Your task to perform on an android device: open app "Indeed Job Search" (install if not already installed) Image 0: 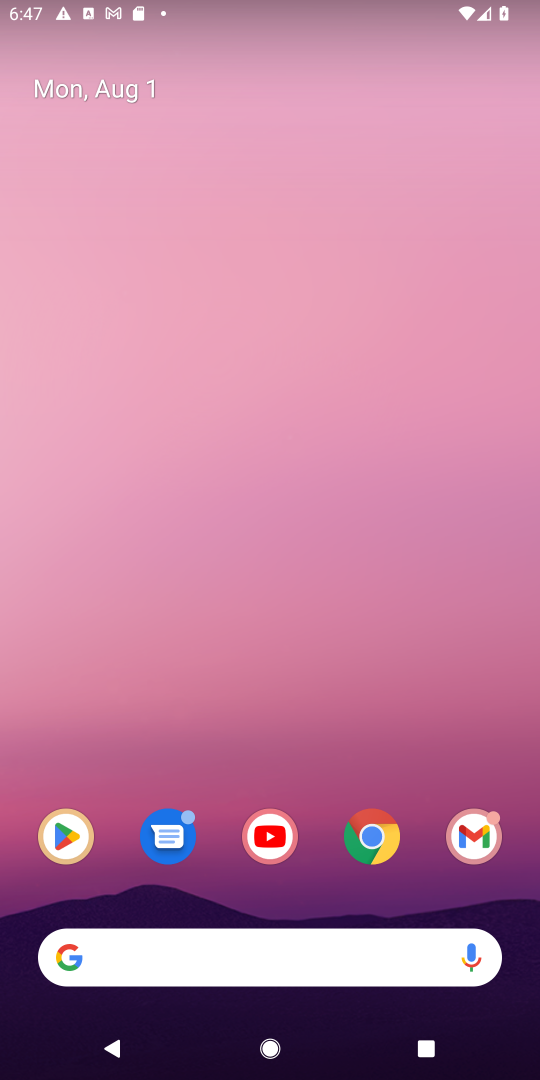
Step 0: click (61, 818)
Your task to perform on an android device: open app "Indeed Job Search" (install if not already installed) Image 1: 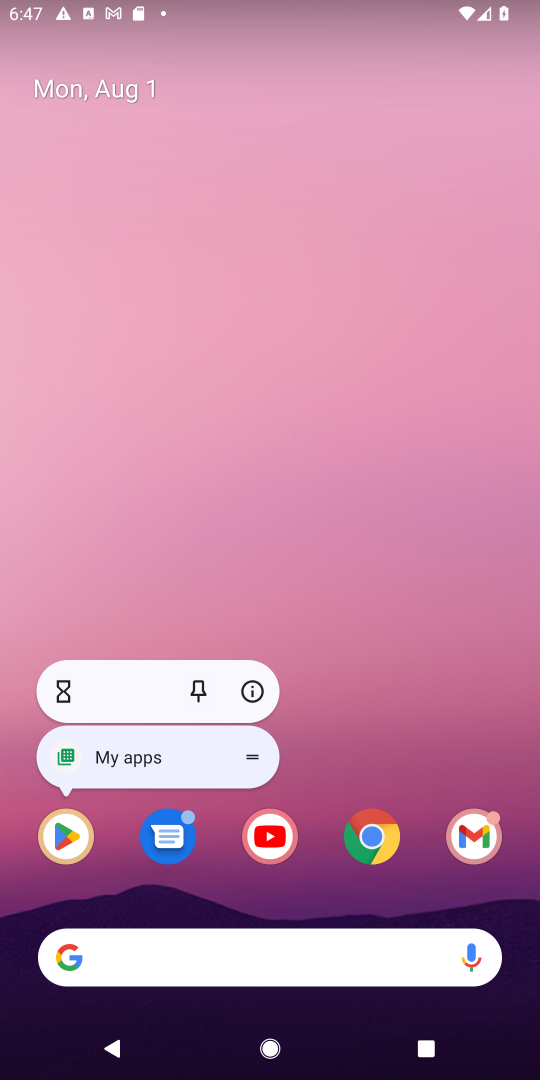
Step 1: click (55, 852)
Your task to perform on an android device: open app "Indeed Job Search" (install if not already installed) Image 2: 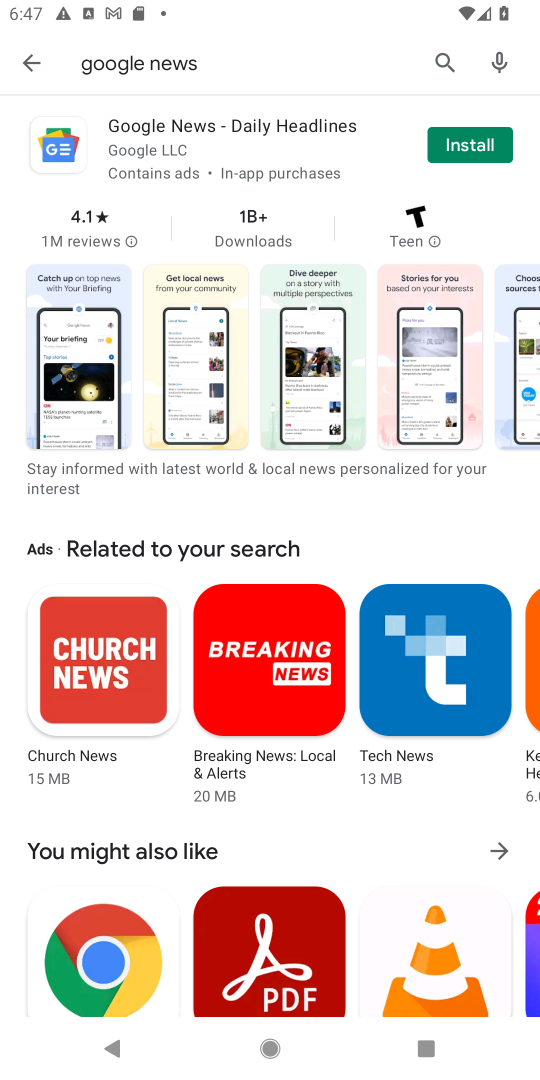
Step 2: click (441, 52)
Your task to perform on an android device: open app "Indeed Job Search" (install if not already installed) Image 3: 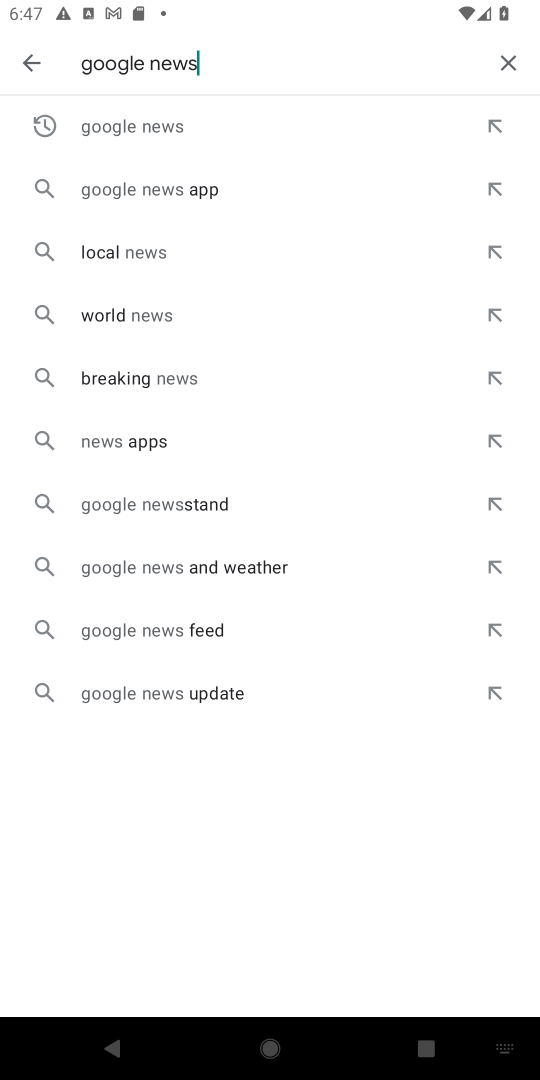
Step 3: click (510, 57)
Your task to perform on an android device: open app "Indeed Job Search" (install if not already installed) Image 4: 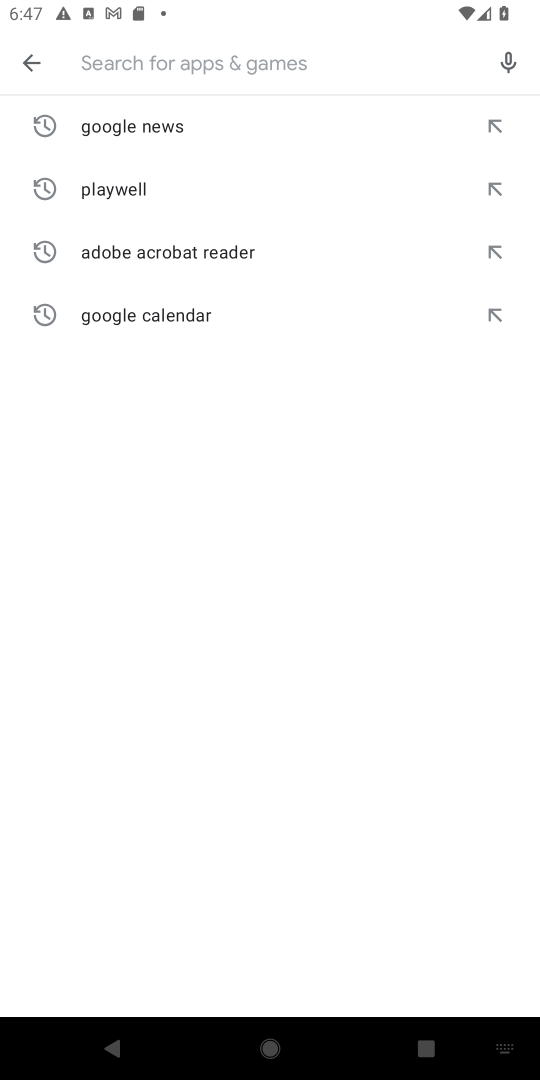
Step 4: type "Indeed Job Search"
Your task to perform on an android device: open app "Indeed Job Search" (install if not already installed) Image 5: 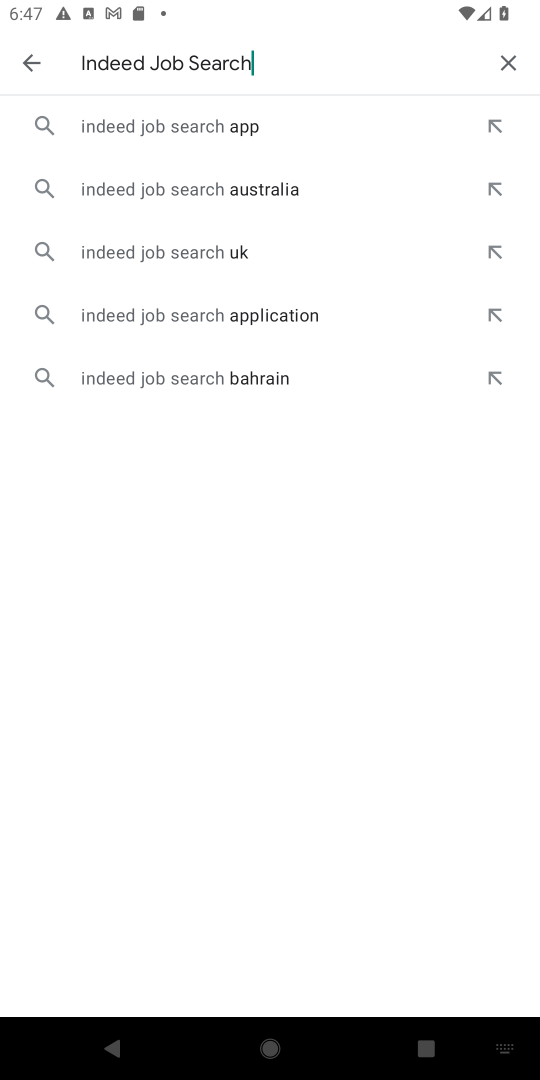
Step 5: click (203, 113)
Your task to perform on an android device: open app "Indeed Job Search" (install if not already installed) Image 6: 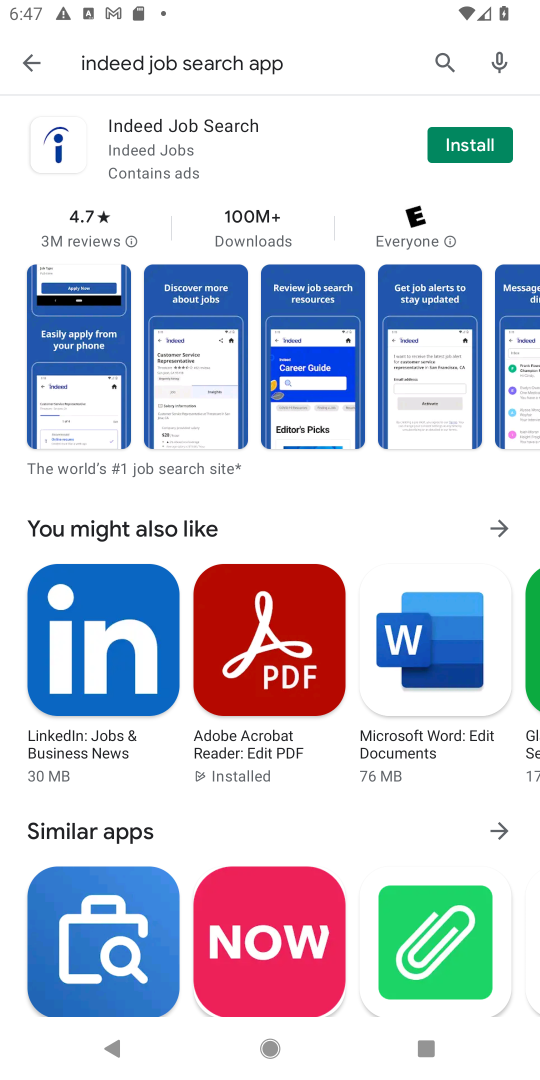
Step 6: click (469, 144)
Your task to perform on an android device: open app "Indeed Job Search" (install if not already installed) Image 7: 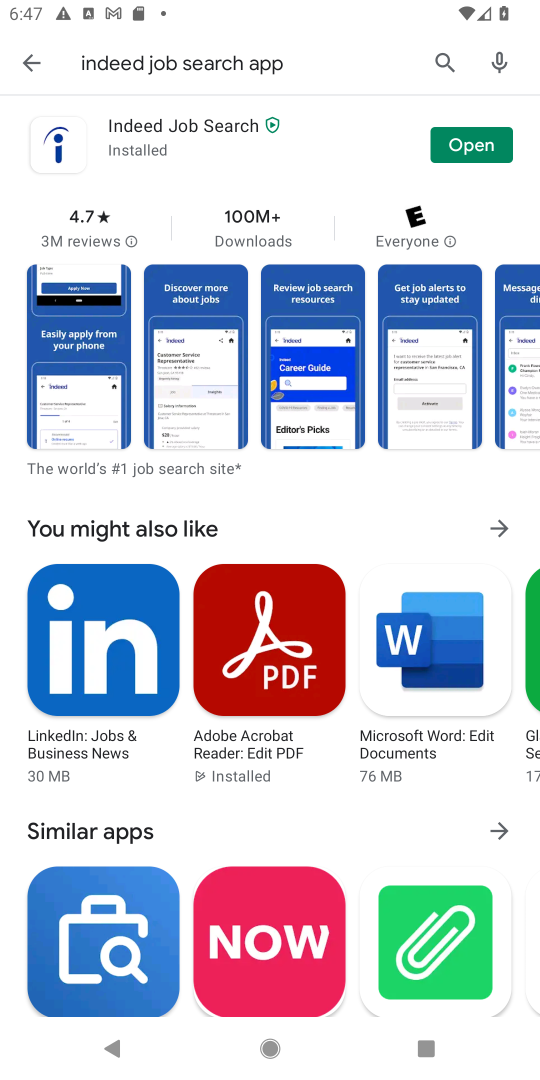
Step 7: click (496, 142)
Your task to perform on an android device: open app "Indeed Job Search" (install if not already installed) Image 8: 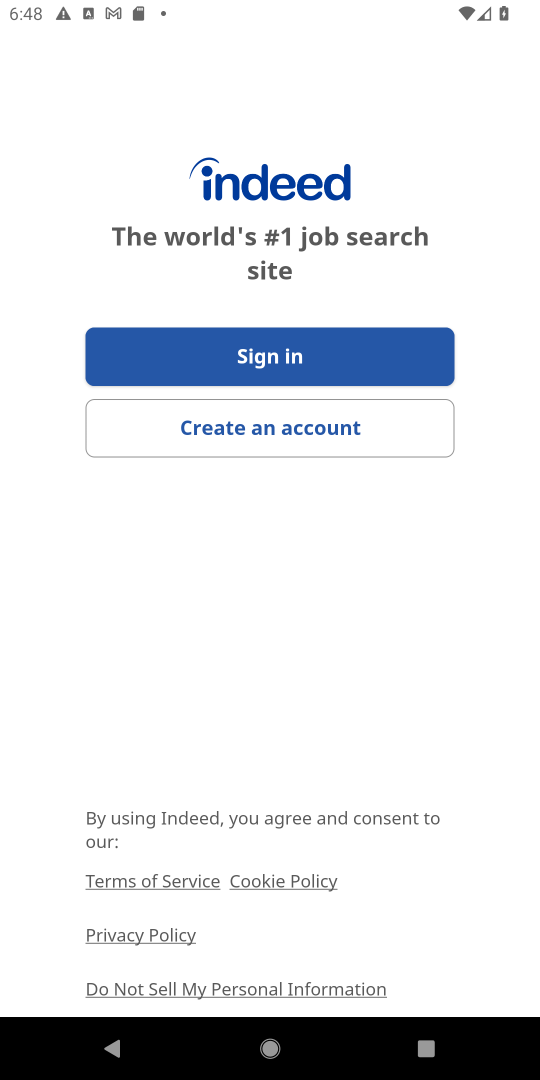
Step 8: task complete